Your task to perform on an android device: Go to wifi settings Image 0: 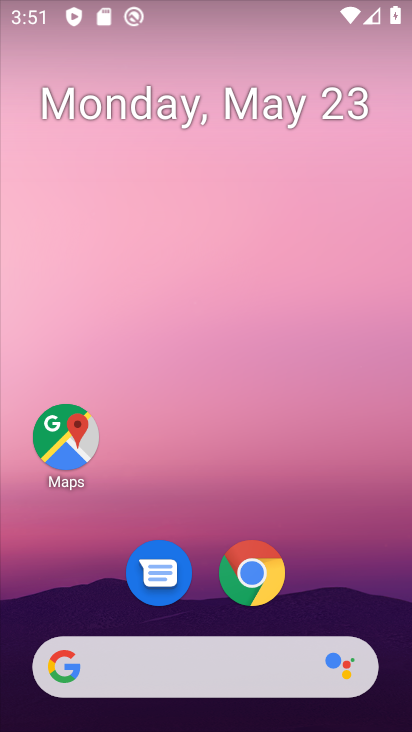
Step 0: drag from (250, 690) to (197, 103)
Your task to perform on an android device: Go to wifi settings Image 1: 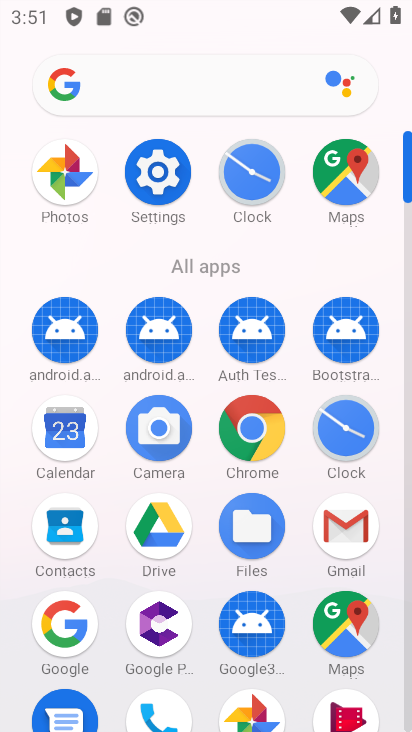
Step 1: click (157, 165)
Your task to perform on an android device: Go to wifi settings Image 2: 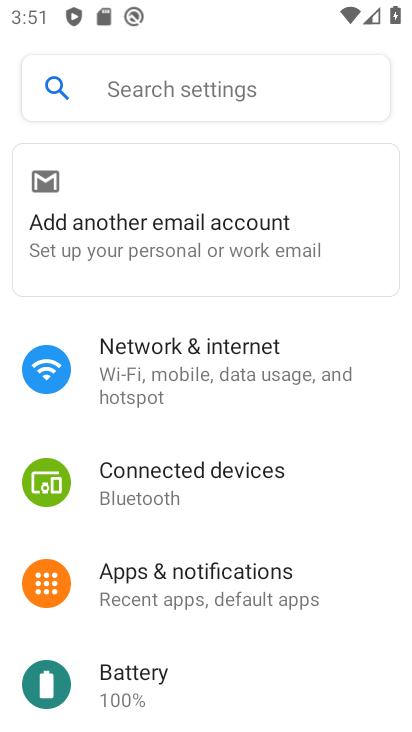
Step 2: click (158, 367)
Your task to perform on an android device: Go to wifi settings Image 3: 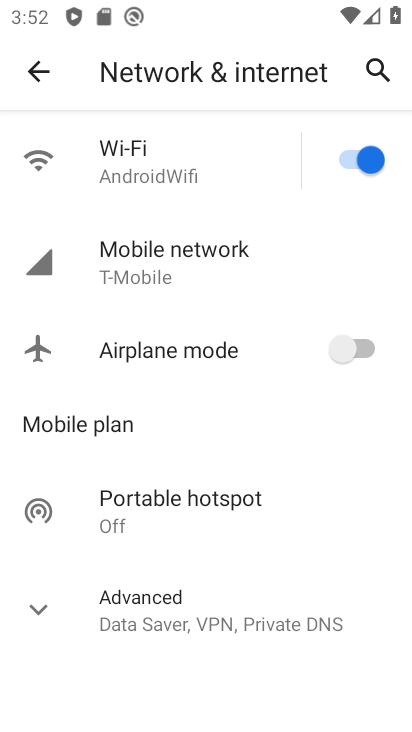
Step 3: click (150, 171)
Your task to perform on an android device: Go to wifi settings Image 4: 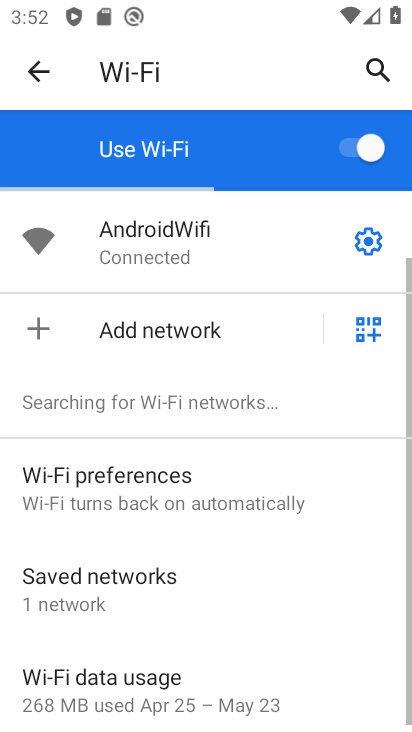
Step 4: task complete